Your task to perform on an android device: Search for seafood restaurants on Google Maps Image 0: 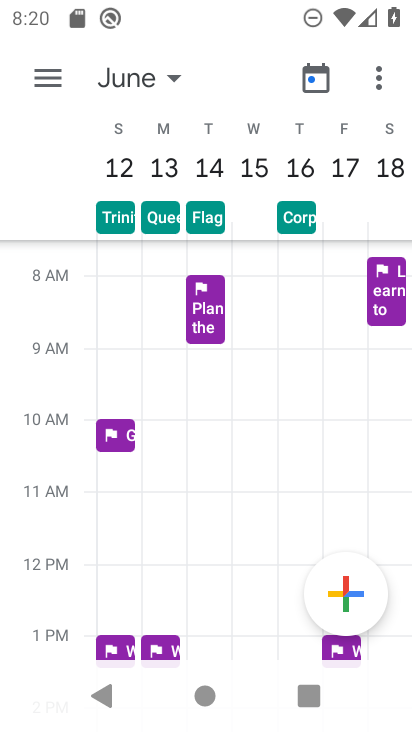
Step 0: press home button
Your task to perform on an android device: Search for seafood restaurants on Google Maps Image 1: 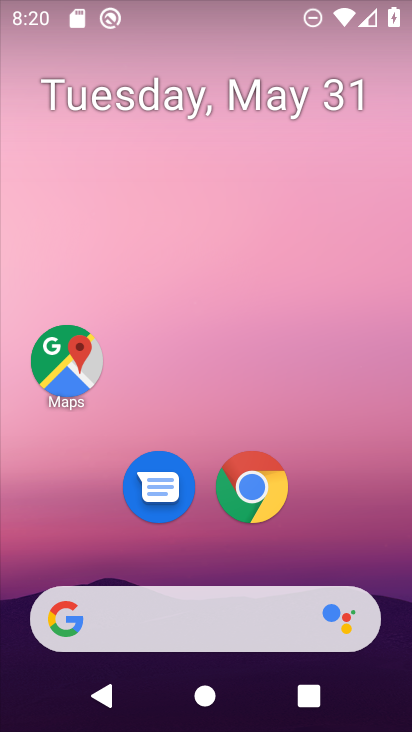
Step 1: click (69, 373)
Your task to perform on an android device: Search for seafood restaurants on Google Maps Image 2: 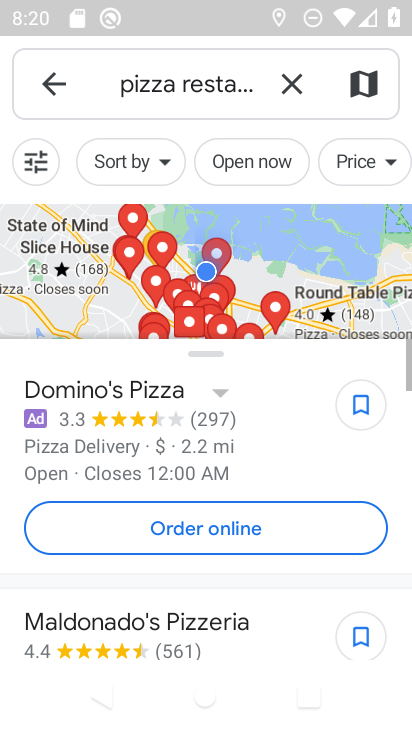
Step 2: click (268, 84)
Your task to perform on an android device: Search for seafood restaurants on Google Maps Image 3: 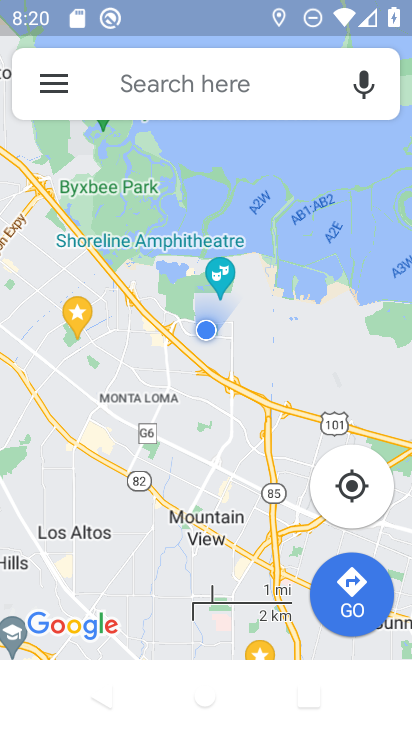
Step 3: click (234, 95)
Your task to perform on an android device: Search for seafood restaurants on Google Maps Image 4: 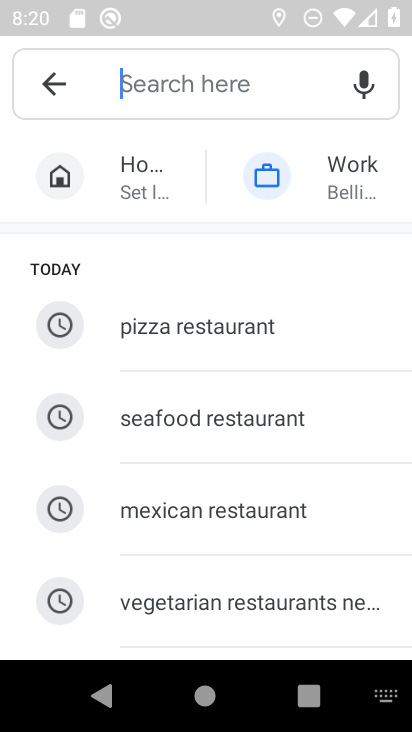
Step 4: click (318, 439)
Your task to perform on an android device: Search for seafood restaurants on Google Maps Image 5: 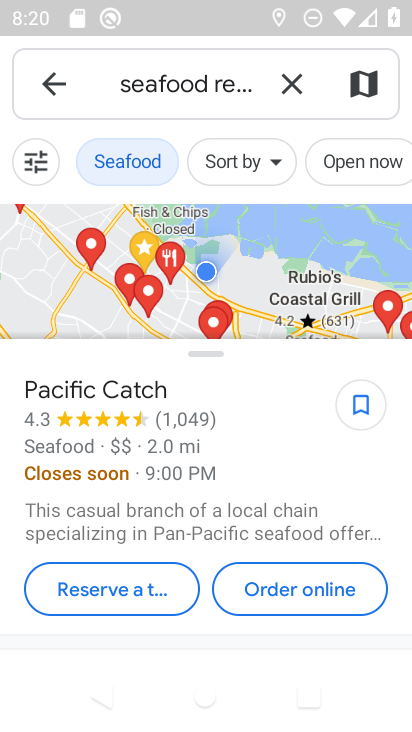
Step 5: task complete